Your task to perform on an android device: Check the news Image 0: 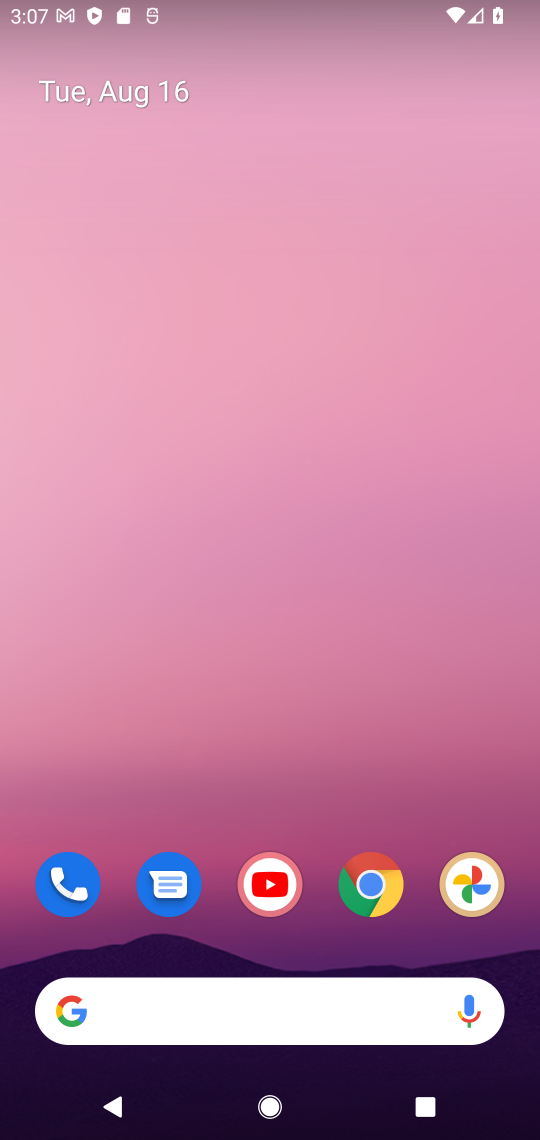
Step 0: drag from (253, 802) to (305, 231)
Your task to perform on an android device: Check the news Image 1: 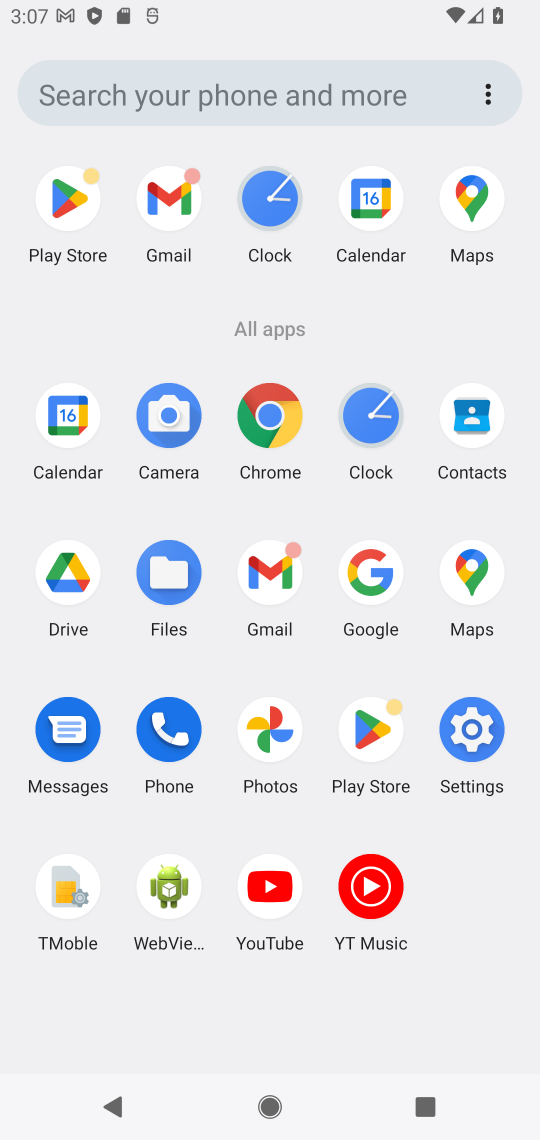
Step 1: click (353, 604)
Your task to perform on an android device: Check the news Image 2: 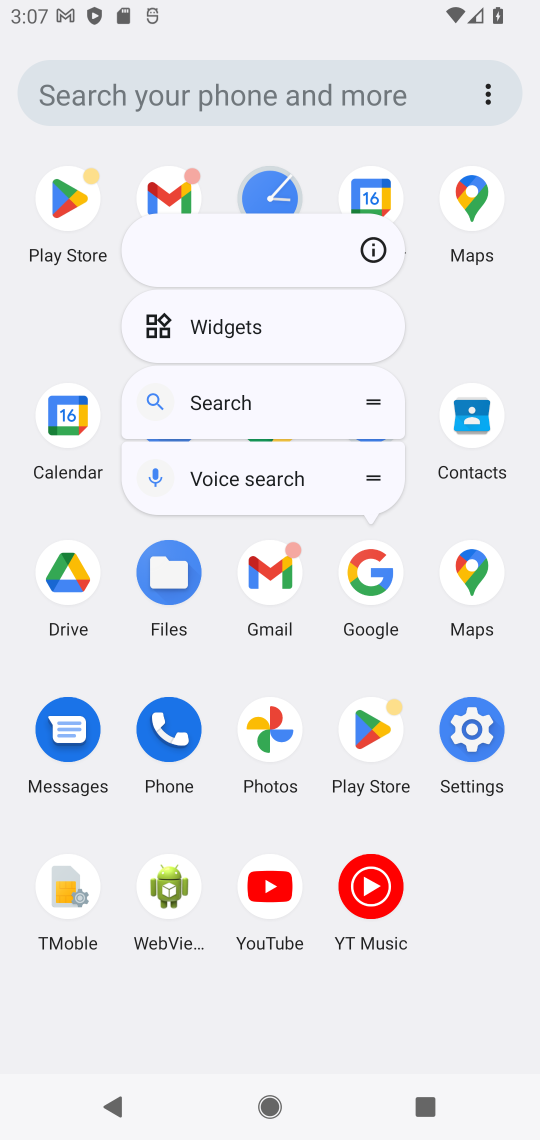
Step 2: click (353, 604)
Your task to perform on an android device: Check the news Image 3: 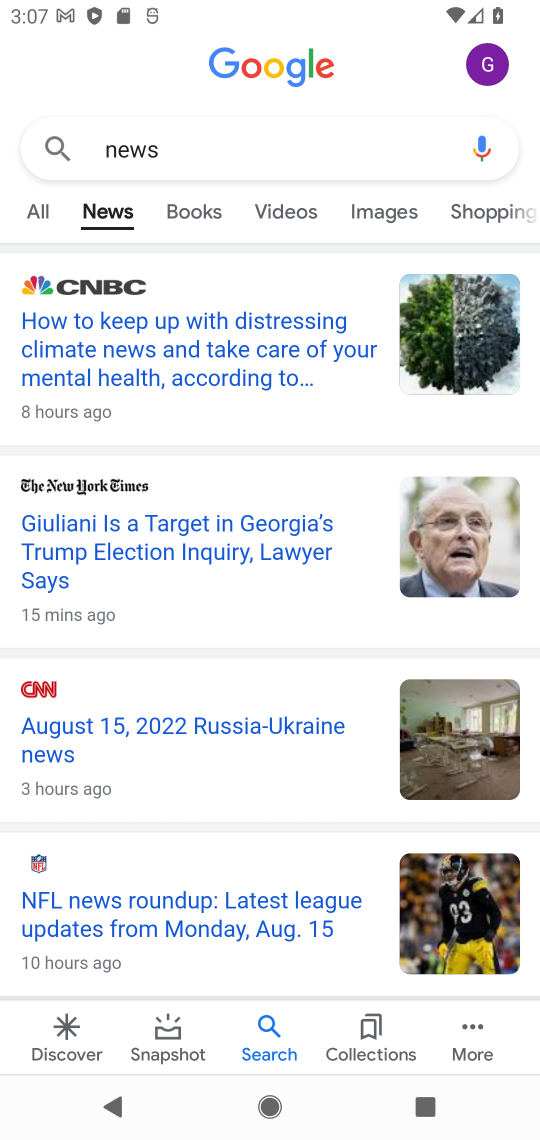
Step 3: task complete